Your task to perform on an android device: search for starred emails in the gmail app Image 0: 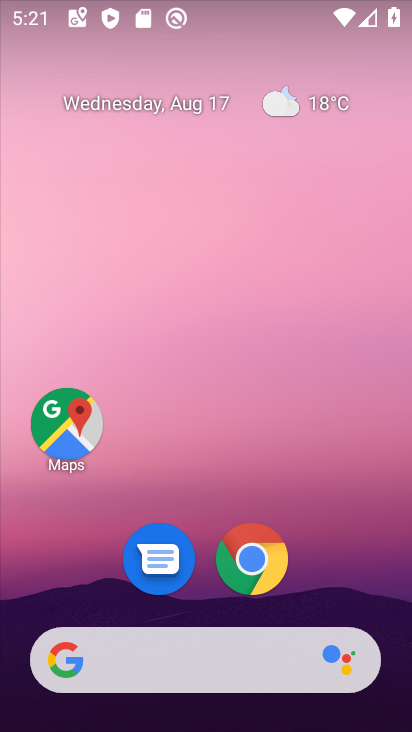
Step 0: drag from (170, 657) to (62, 4)
Your task to perform on an android device: search for starred emails in the gmail app Image 1: 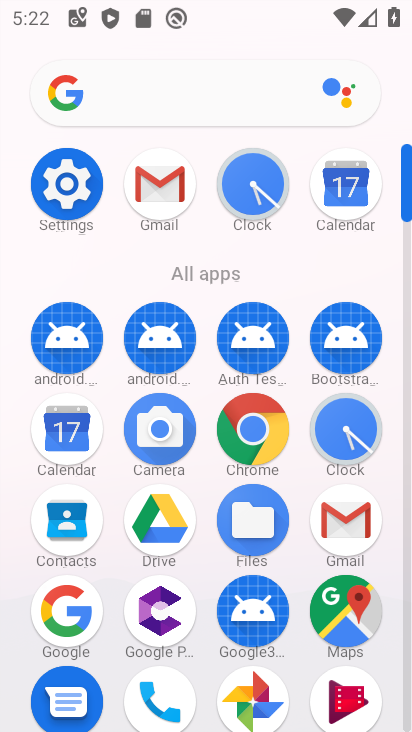
Step 1: click (145, 206)
Your task to perform on an android device: search for starred emails in the gmail app Image 2: 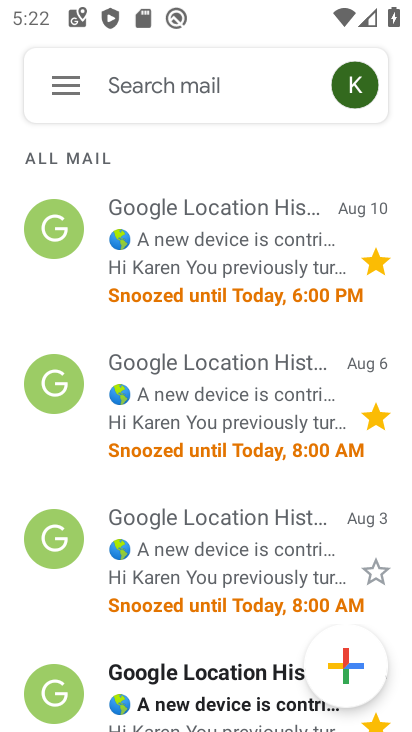
Step 2: click (60, 111)
Your task to perform on an android device: search for starred emails in the gmail app Image 3: 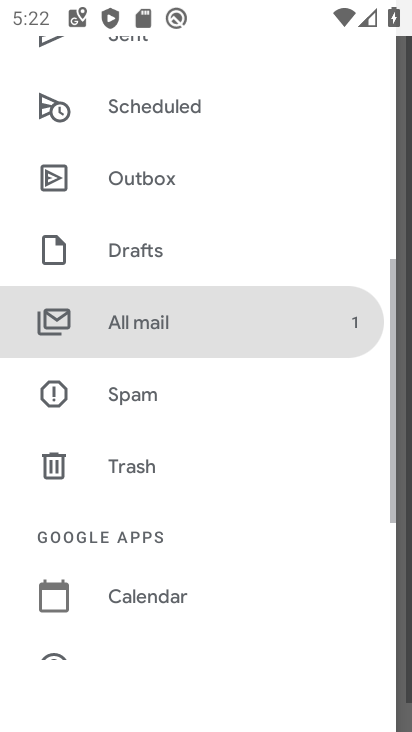
Step 3: drag from (169, 192) to (120, 707)
Your task to perform on an android device: search for starred emails in the gmail app Image 4: 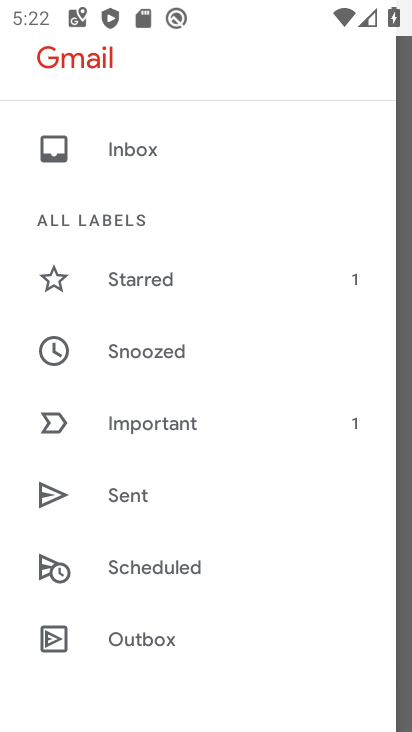
Step 4: click (124, 281)
Your task to perform on an android device: search for starred emails in the gmail app Image 5: 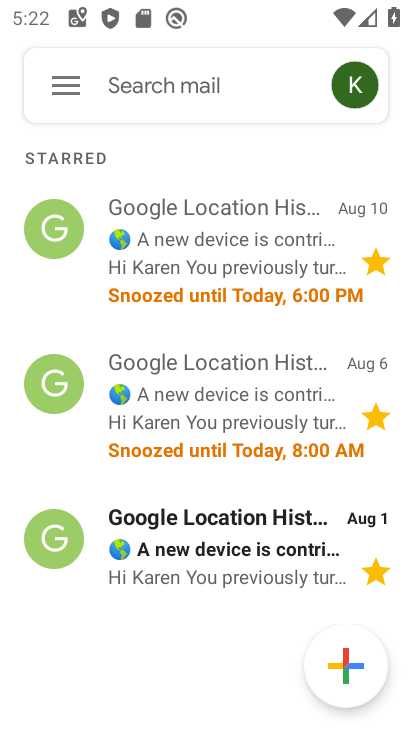
Step 5: task complete